Your task to perform on an android device: turn off notifications in google photos Image 0: 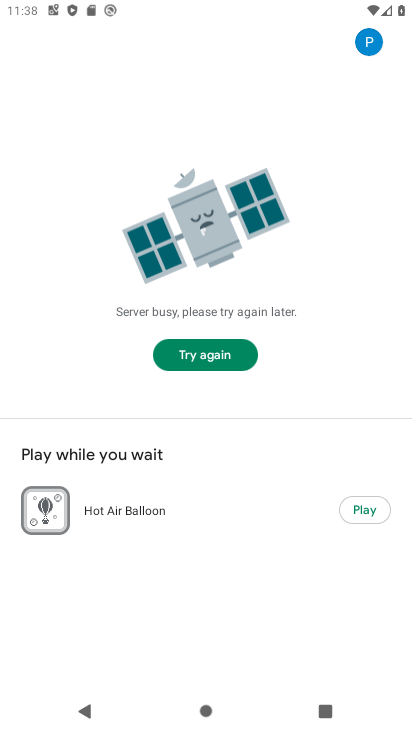
Step 0: press home button
Your task to perform on an android device: turn off notifications in google photos Image 1: 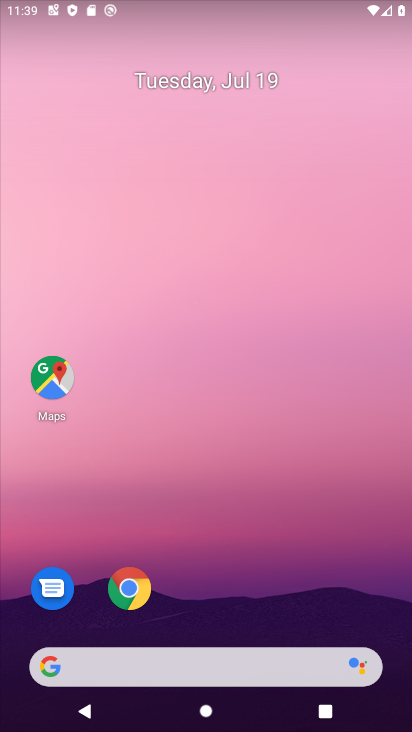
Step 1: drag from (216, 494) to (274, 170)
Your task to perform on an android device: turn off notifications in google photos Image 2: 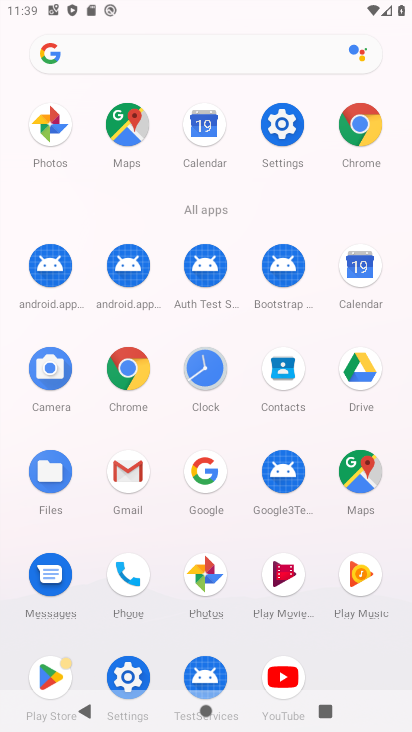
Step 2: click (205, 574)
Your task to perform on an android device: turn off notifications in google photos Image 3: 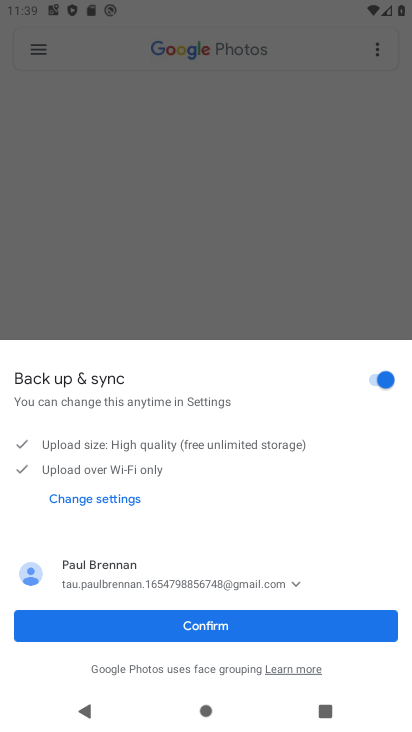
Step 3: click (255, 633)
Your task to perform on an android device: turn off notifications in google photos Image 4: 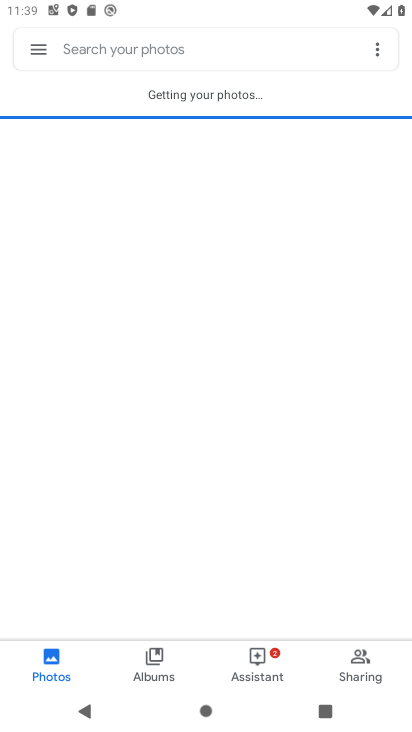
Step 4: click (37, 46)
Your task to perform on an android device: turn off notifications in google photos Image 5: 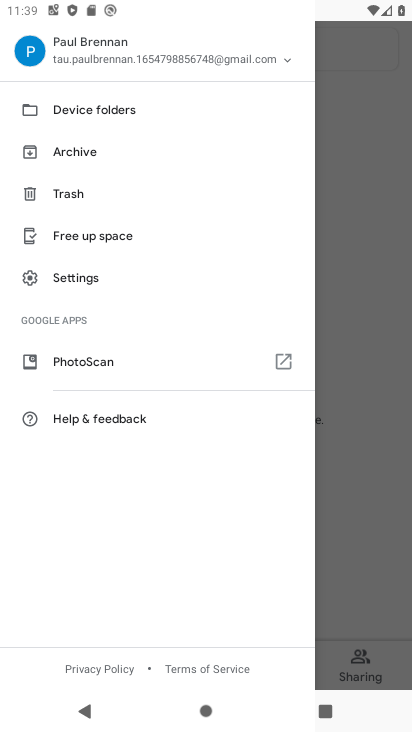
Step 5: click (83, 284)
Your task to perform on an android device: turn off notifications in google photos Image 6: 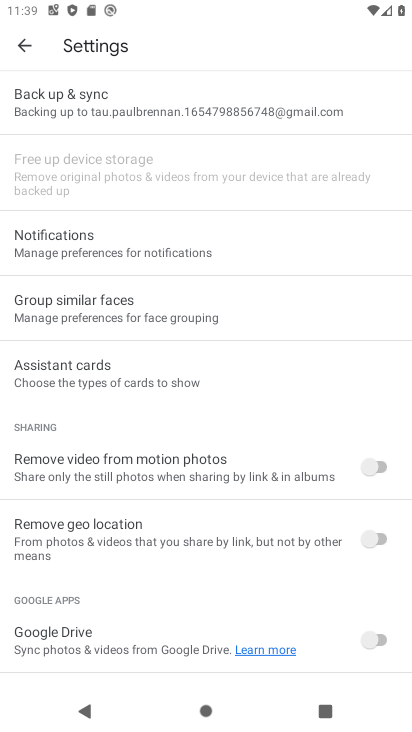
Step 6: click (102, 237)
Your task to perform on an android device: turn off notifications in google photos Image 7: 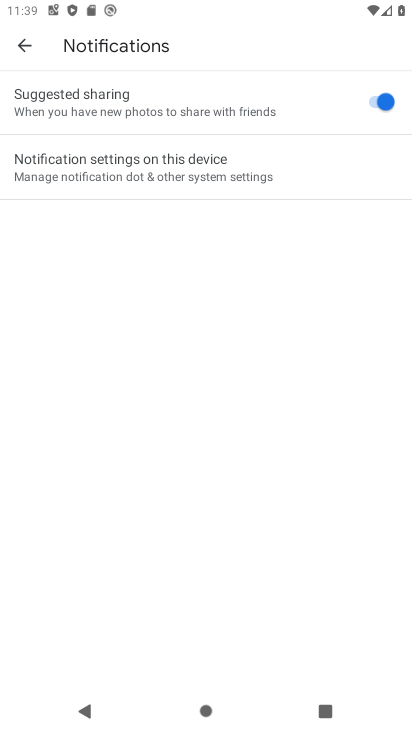
Step 7: click (89, 165)
Your task to perform on an android device: turn off notifications in google photos Image 8: 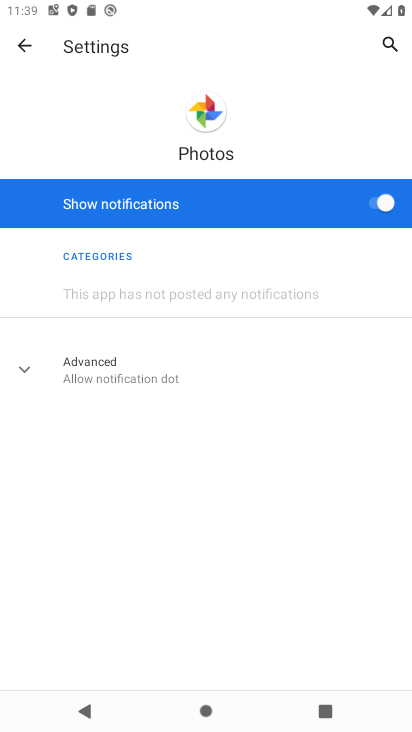
Step 8: click (348, 204)
Your task to perform on an android device: turn off notifications in google photos Image 9: 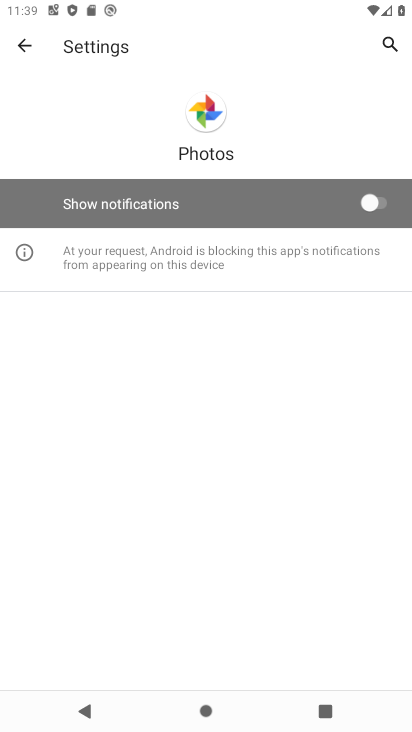
Step 9: task complete